Your task to perform on an android device: remove spam from my inbox in the gmail app Image 0: 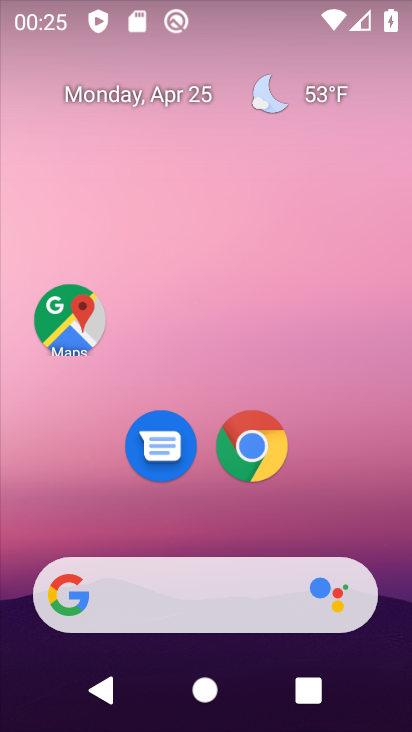
Step 0: drag from (215, 518) to (335, 29)
Your task to perform on an android device: remove spam from my inbox in the gmail app Image 1: 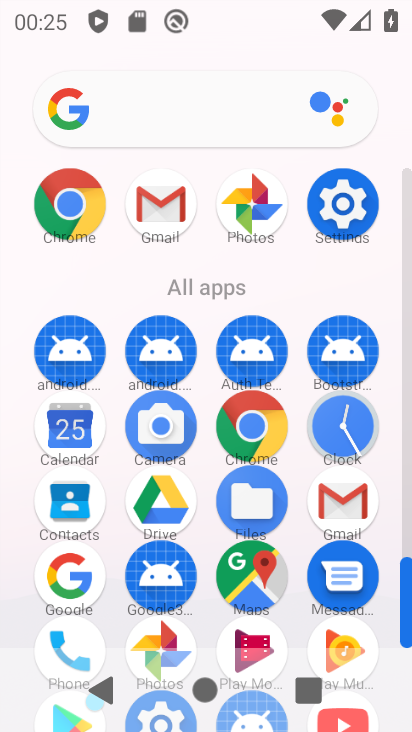
Step 1: click (348, 484)
Your task to perform on an android device: remove spam from my inbox in the gmail app Image 2: 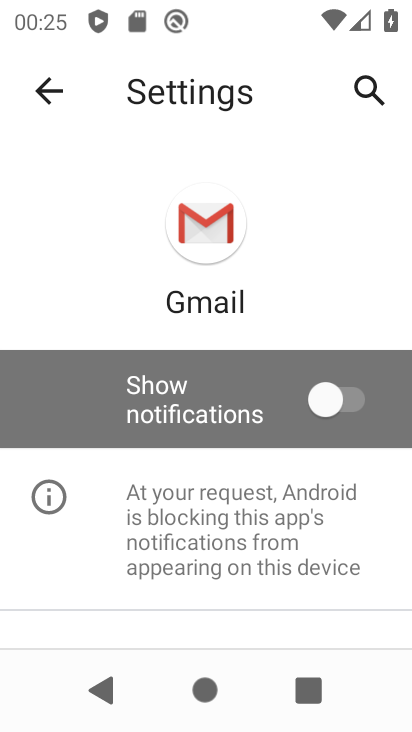
Step 2: click (55, 84)
Your task to perform on an android device: remove spam from my inbox in the gmail app Image 3: 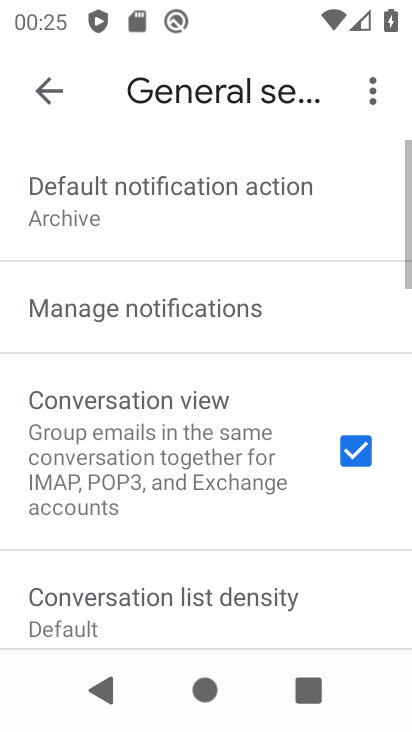
Step 3: click (51, 90)
Your task to perform on an android device: remove spam from my inbox in the gmail app Image 4: 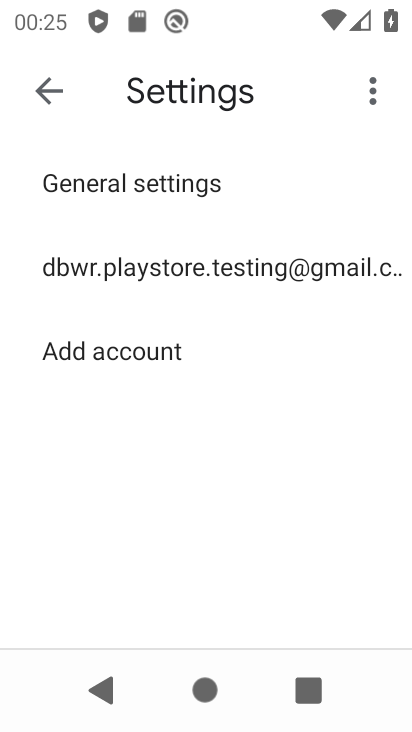
Step 4: click (51, 94)
Your task to perform on an android device: remove spam from my inbox in the gmail app Image 5: 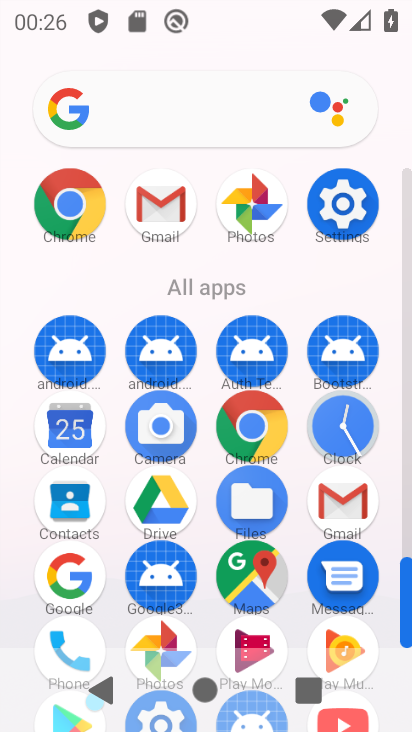
Step 5: click (353, 499)
Your task to perform on an android device: remove spam from my inbox in the gmail app Image 6: 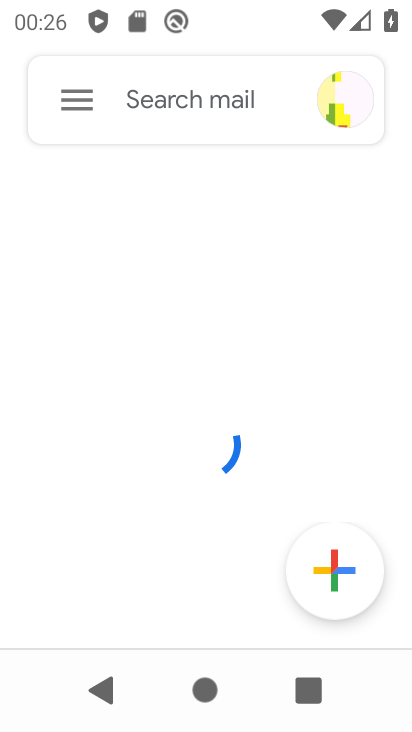
Step 6: click (78, 106)
Your task to perform on an android device: remove spam from my inbox in the gmail app Image 7: 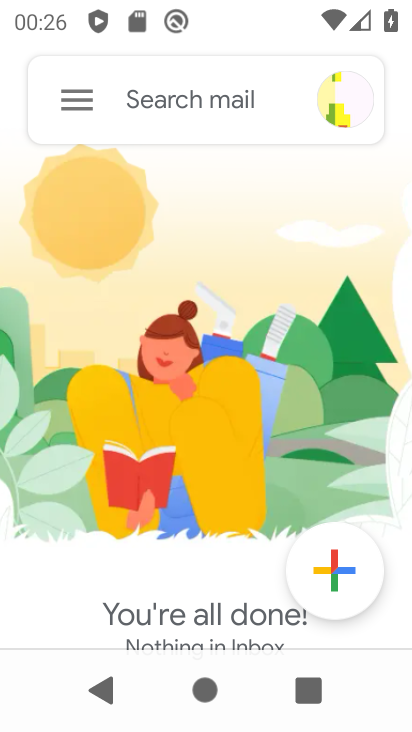
Step 7: click (72, 93)
Your task to perform on an android device: remove spam from my inbox in the gmail app Image 8: 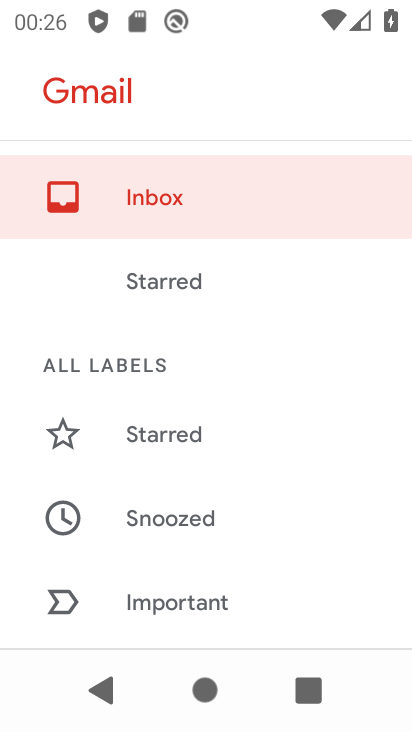
Step 8: drag from (125, 463) to (181, 121)
Your task to perform on an android device: remove spam from my inbox in the gmail app Image 9: 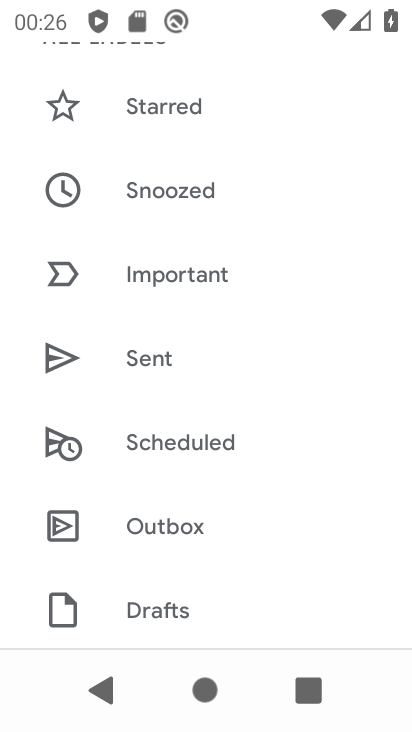
Step 9: drag from (150, 514) to (180, 123)
Your task to perform on an android device: remove spam from my inbox in the gmail app Image 10: 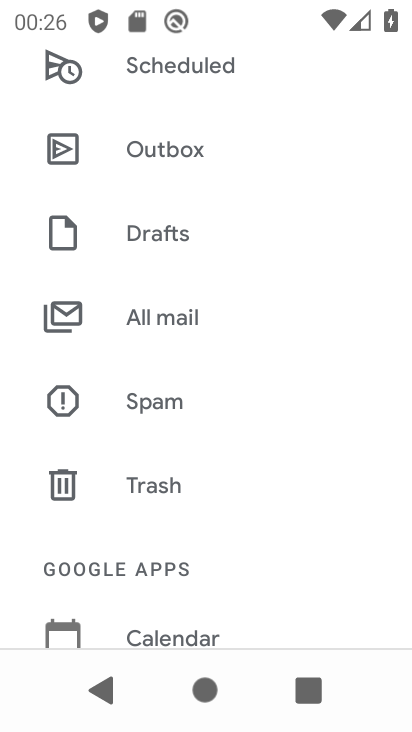
Step 10: click (175, 414)
Your task to perform on an android device: remove spam from my inbox in the gmail app Image 11: 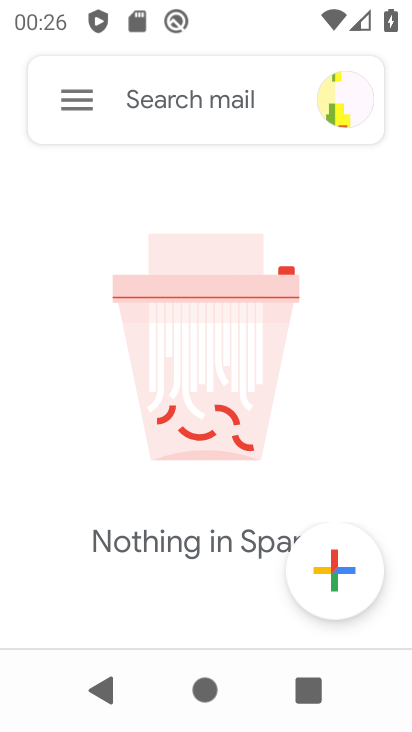
Step 11: task complete